Your task to perform on an android device: Add "dell alienware" to the cart on bestbuy, then select checkout. Image 0: 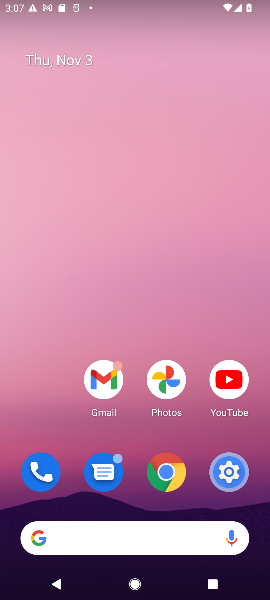
Step 0: click (95, 535)
Your task to perform on an android device: Add "dell alienware" to the cart on bestbuy, then select checkout. Image 1: 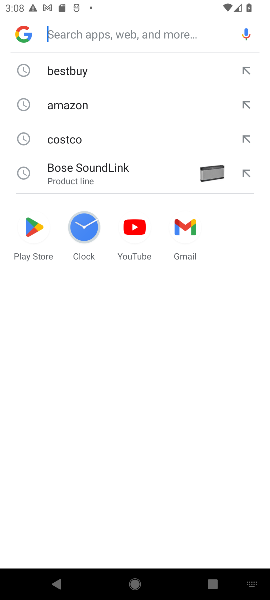
Step 1: type "dell alienware"
Your task to perform on an android device: Add "dell alienware" to the cart on bestbuy, then select checkout. Image 2: 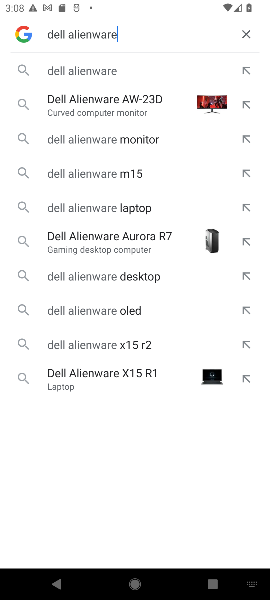
Step 2: click (101, 76)
Your task to perform on an android device: Add "dell alienware" to the cart on bestbuy, then select checkout. Image 3: 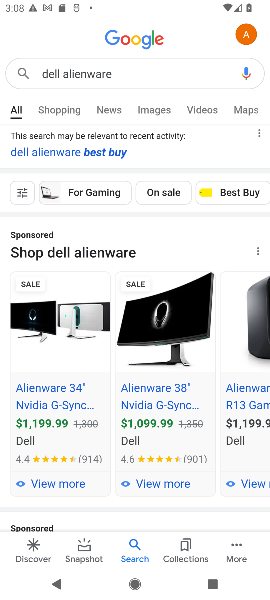
Step 3: task complete